Your task to perform on an android device: Do I have any events this weekend? Image 0: 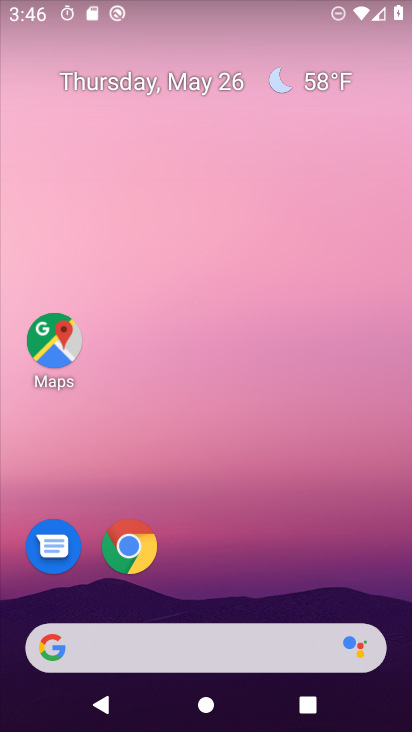
Step 0: press home button
Your task to perform on an android device: Do I have any events this weekend? Image 1: 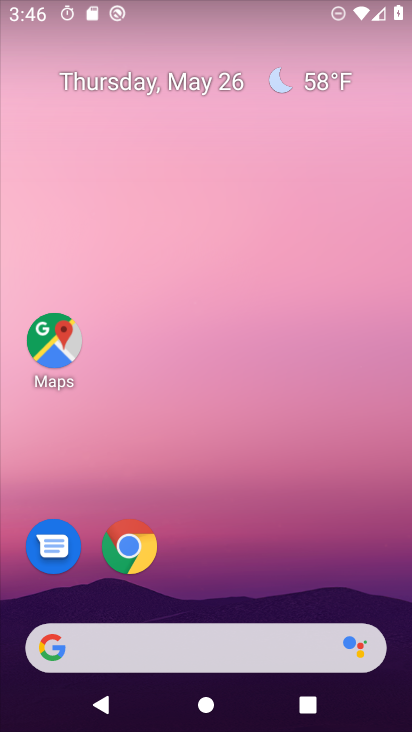
Step 1: drag from (220, 593) to (230, 108)
Your task to perform on an android device: Do I have any events this weekend? Image 2: 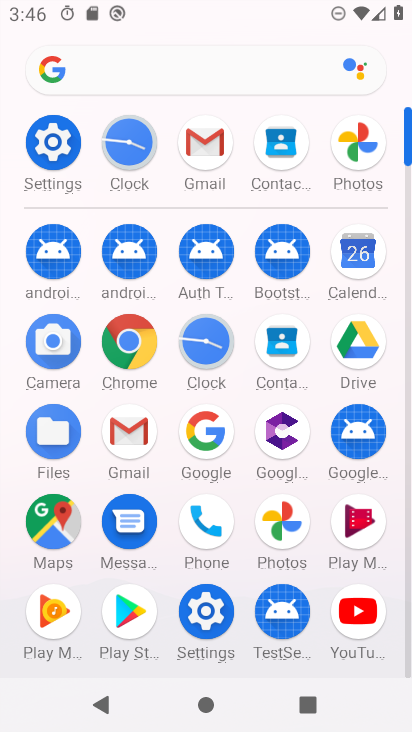
Step 2: click (357, 250)
Your task to perform on an android device: Do I have any events this weekend? Image 3: 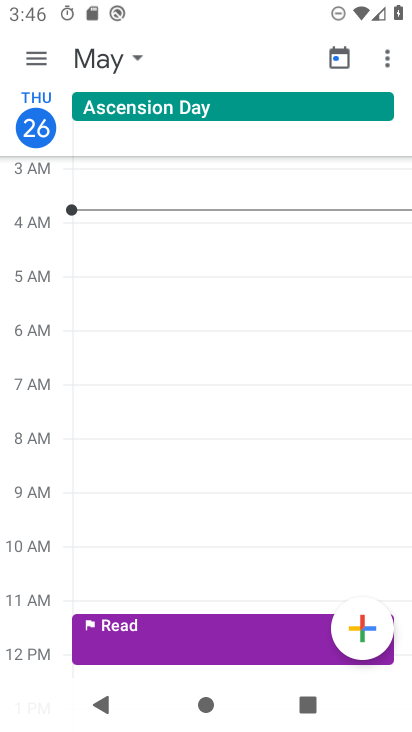
Step 3: click (64, 140)
Your task to perform on an android device: Do I have any events this weekend? Image 4: 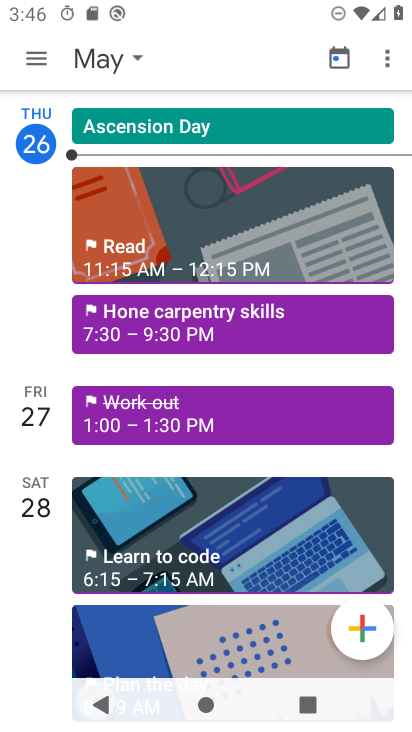
Step 4: drag from (40, 555) to (62, 185)
Your task to perform on an android device: Do I have any events this weekend? Image 5: 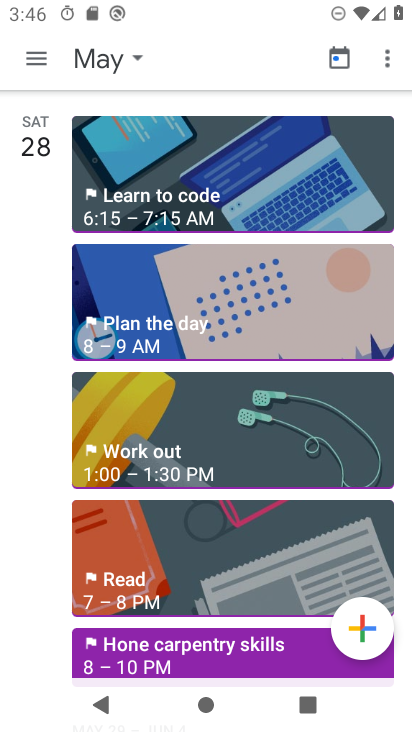
Step 5: click (31, 48)
Your task to perform on an android device: Do I have any events this weekend? Image 6: 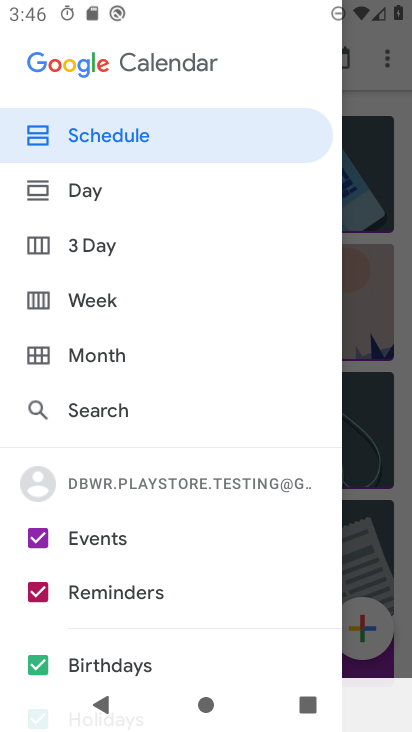
Step 6: click (37, 595)
Your task to perform on an android device: Do I have any events this weekend? Image 7: 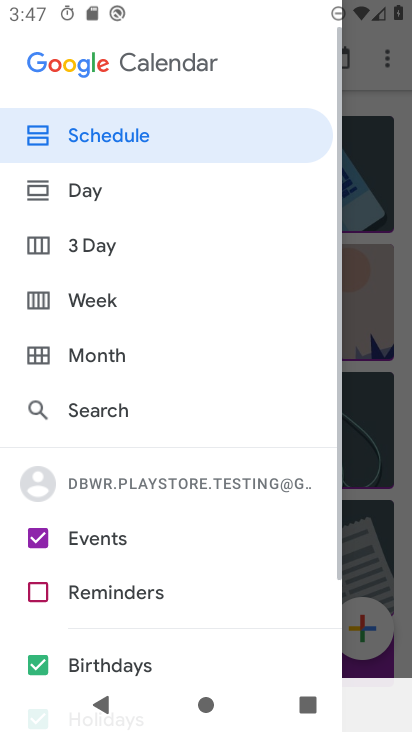
Step 7: click (38, 660)
Your task to perform on an android device: Do I have any events this weekend? Image 8: 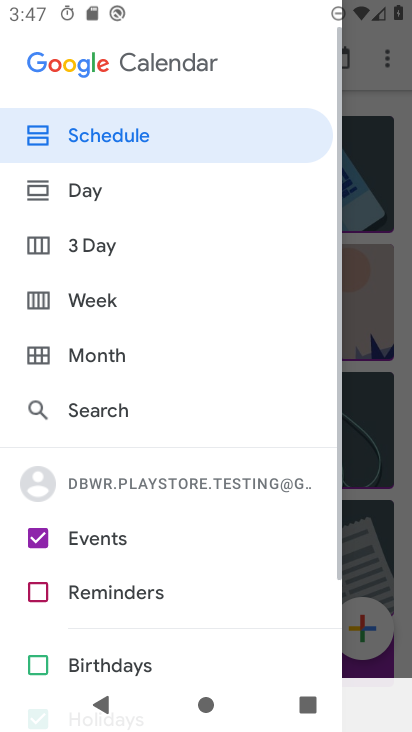
Step 8: drag from (118, 651) to (158, 150)
Your task to perform on an android device: Do I have any events this weekend? Image 9: 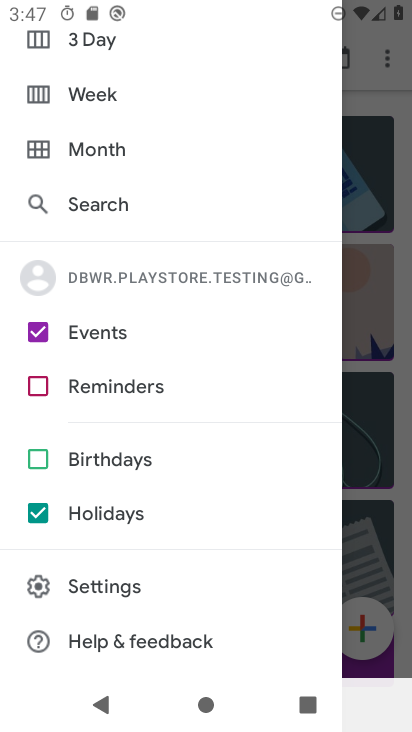
Step 9: click (37, 509)
Your task to perform on an android device: Do I have any events this weekend? Image 10: 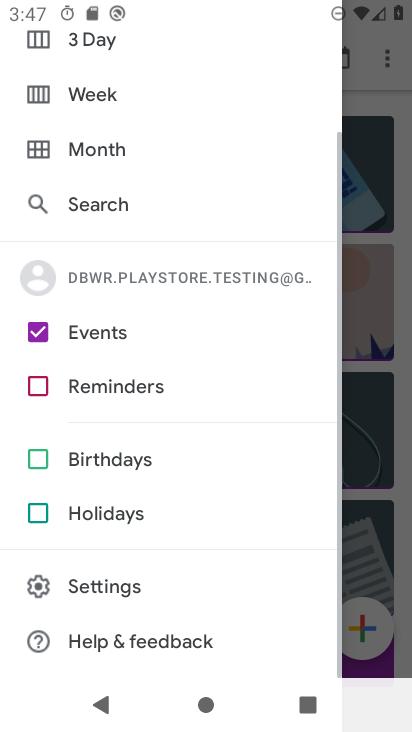
Step 10: drag from (111, 130) to (122, 573)
Your task to perform on an android device: Do I have any events this weekend? Image 11: 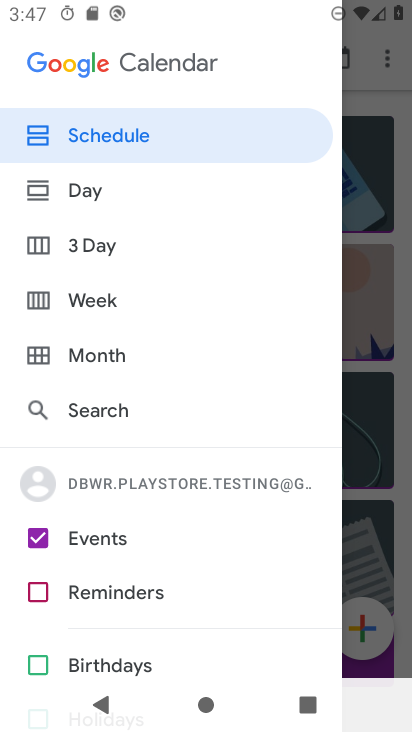
Step 11: click (75, 133)
Your task to perform on an android device: Do I have any events this weekend? Image 12: 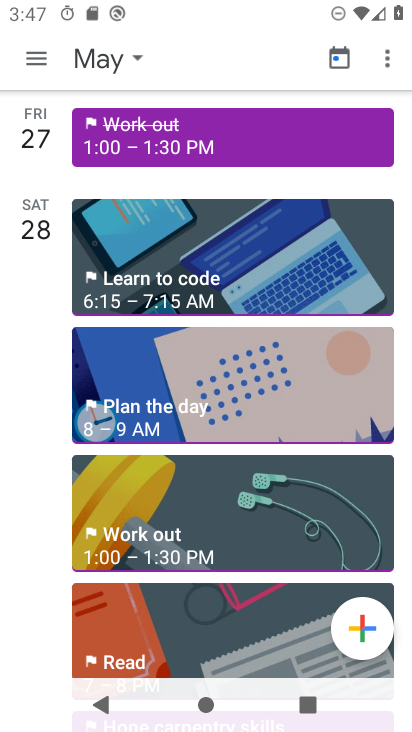
Step 12: task complete